Your task to perform on an android device: What's the weather going to be this weekend? Image 0: 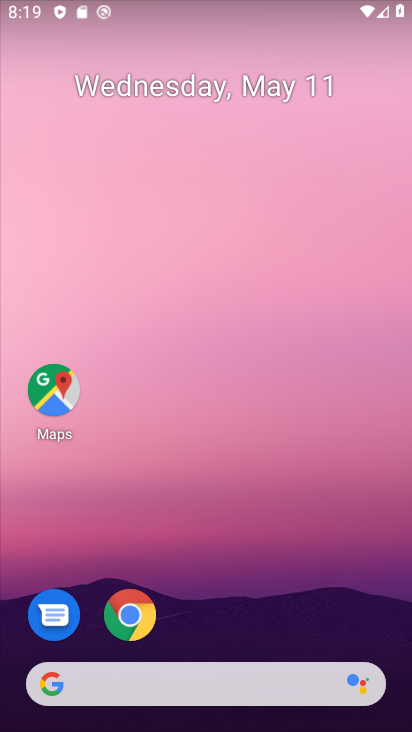
Step 0: drag from (284, 491) to (16, 238)
Your task to perform on an android device: What's the weather going to be this weekend? Image 1: 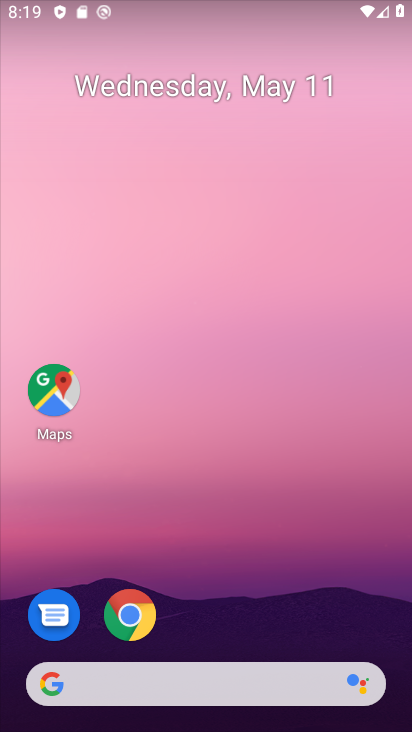
Step 1: click (40, 691)
Your task to perform on an android device: What's the weather going to be this weekend? Image 2: 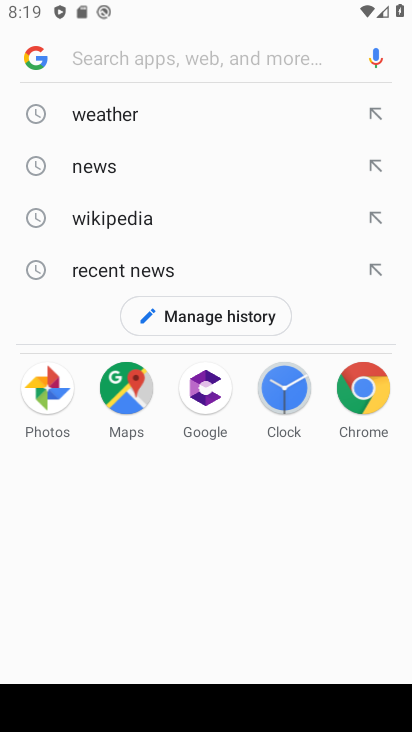
Step 2: click (24, 48)
Your task to perform on an android device: What's the weather going to be this weekend? Image 3: 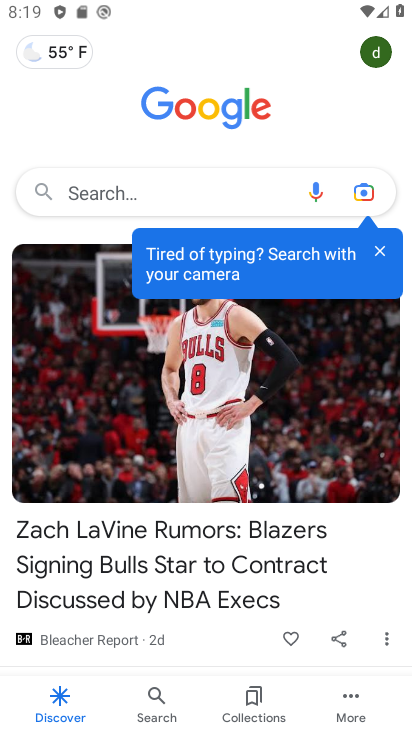
Step 3: click (50, 53)
Your task to perform on an android device: What's the weather going to be this weekend? Image 4: 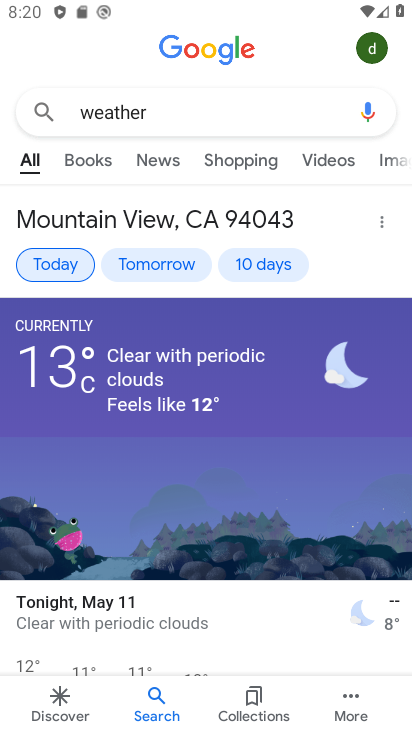
Step 4: task complete